Your task to perform on an android device: allow notifications from all sites in the chrome app Image 0: 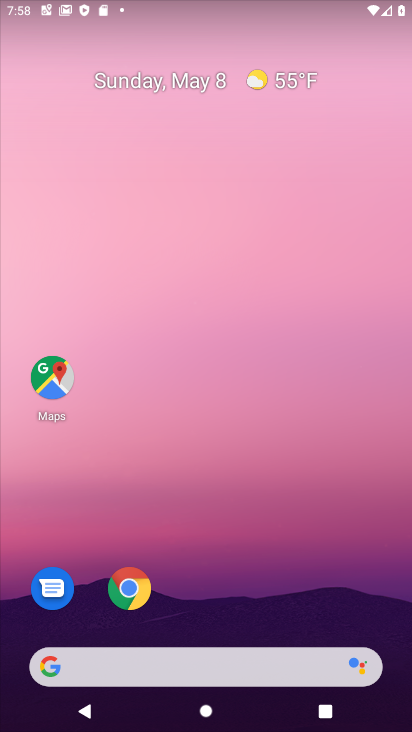
Step 0: drag from (331, 610) to (251, 62)
Your task to perform on an android device: allow notifications from all sites in the chrome app Image 1: 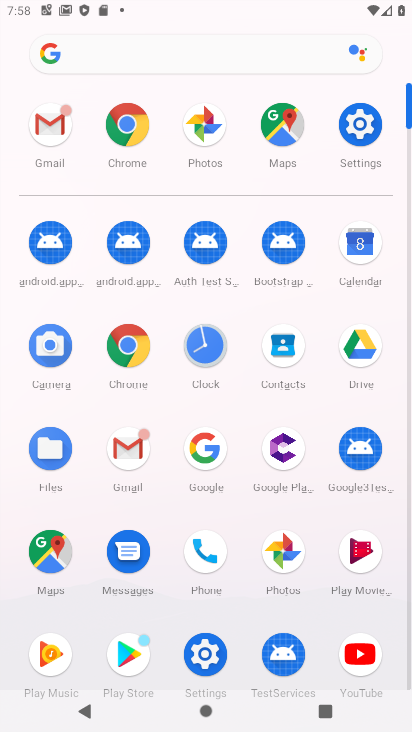
Step 1: click (118, 111)
Your task to perform on an android device: allow notifications from all sites in the chrome app Image 2: 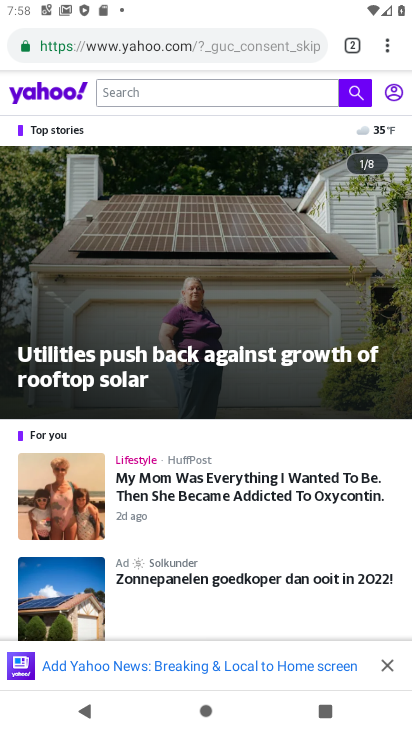
Step 2: press back button
Your task to perform on an android device: allow notifications from all sites in the chrome app Image 3: 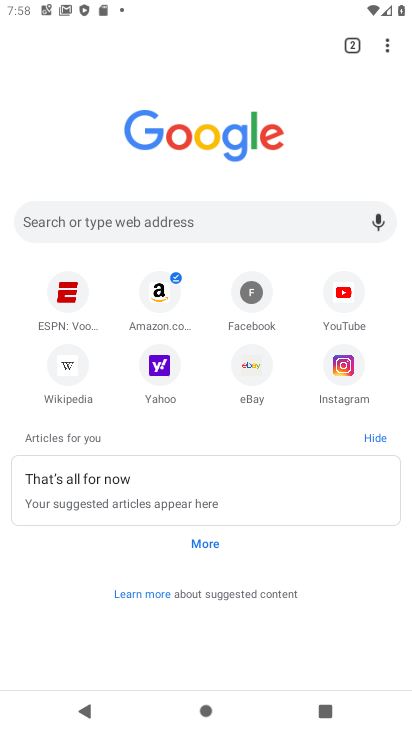
Step 3: click (389, 45)
Your task to perform on an android device: allow notifications from all sites in the chrome app Image 4: 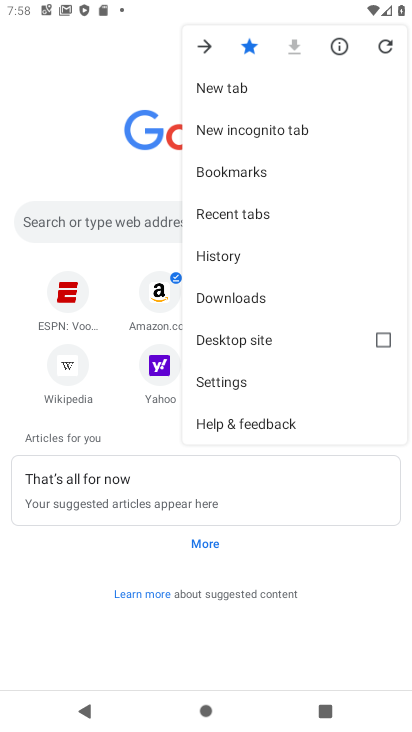
Step 4: click (245, 387)
Your task to perform on an android device: allow notifications from all sites in the chrome app Image 5: 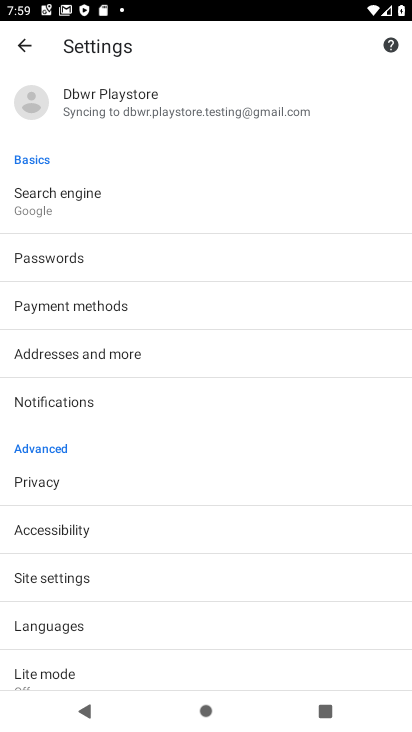
Step 5: click (96, 400)
Your task to perform on an android device: allow notifications from all sites in the chrome app Image 6: 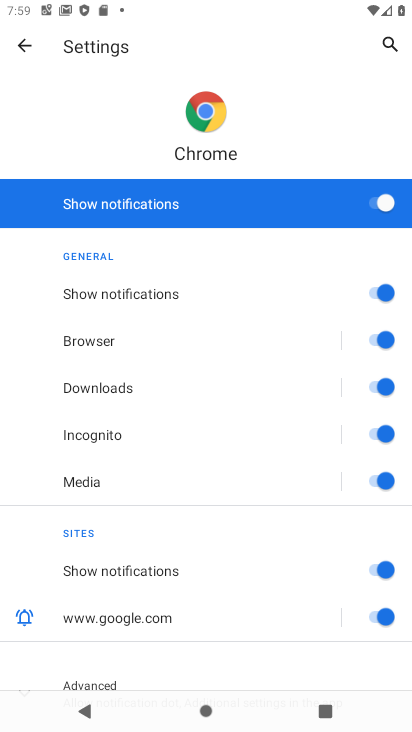
Step 6: task complete